Your task to perform on an android device: turn on wifi Image 0: 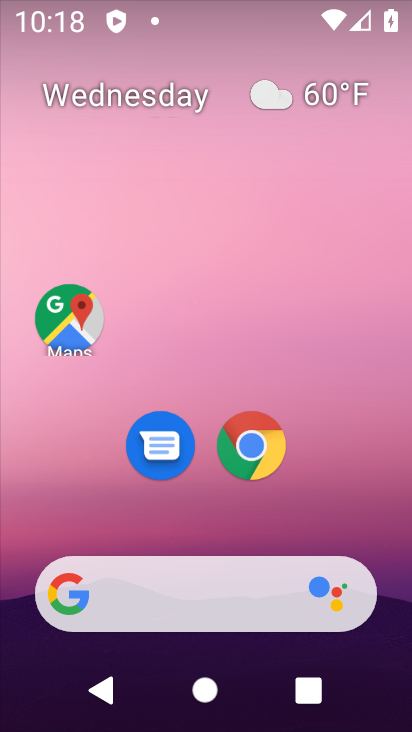
Step 0: drag from (218, 502) to (213, 202)
Your task to perform on an android device: turn on wifi Image 1: 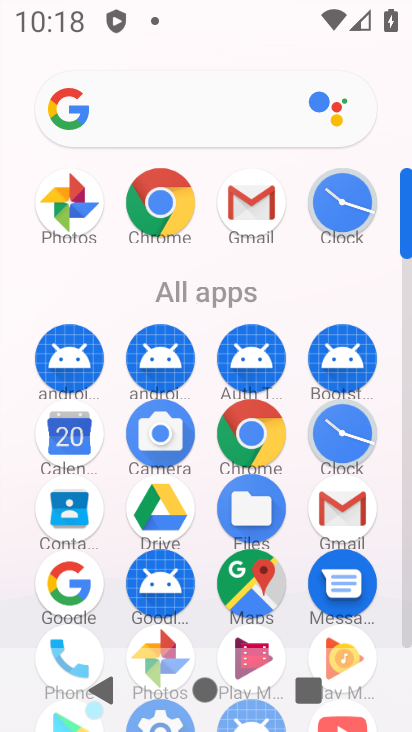
Step 1: drag from (203, 571) to (225, 299)
Your task to perform on an android device: turn on wifi Image 2: 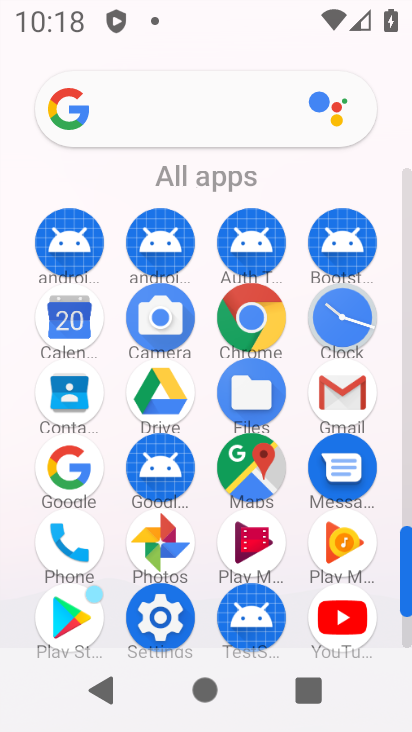
Step 2: click (150, 628)
Your task to perform on an android device: turn on wifi Image 3: 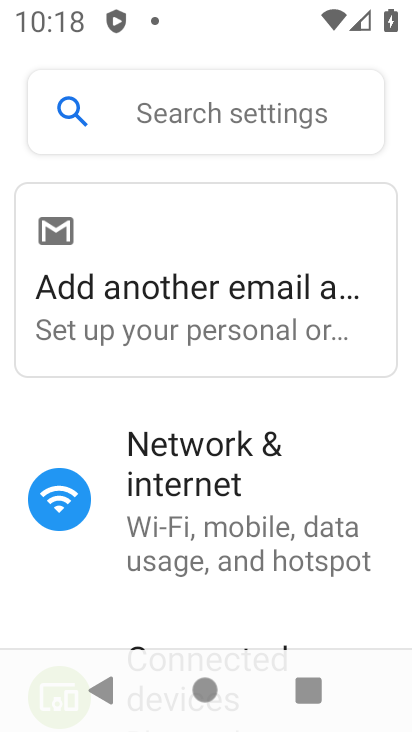
Step 3: click (184, 421)
Your task to perform on an android device: turn on wifi Image 4: 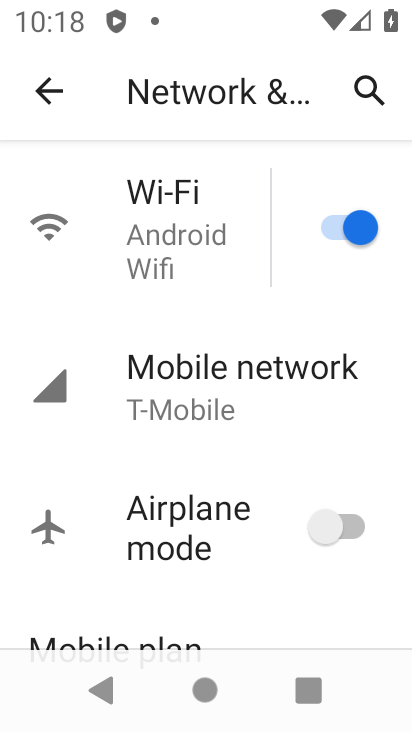
Step 4: task complete